Your task to perform on an android device: change timer sound Image 0: 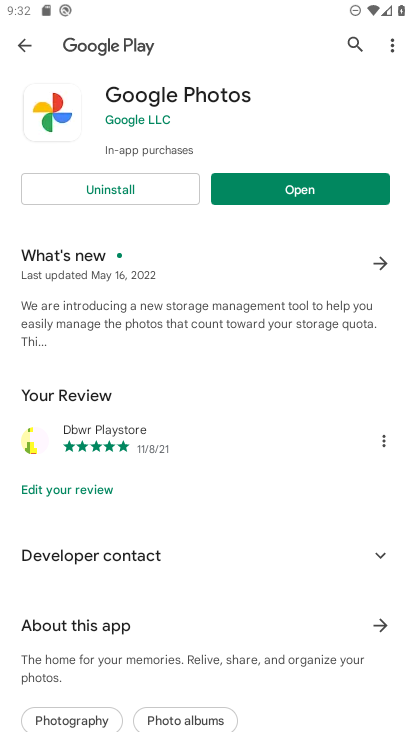
Step 0: press home button
Your task to perform on an android device: change timer sound Image 1: 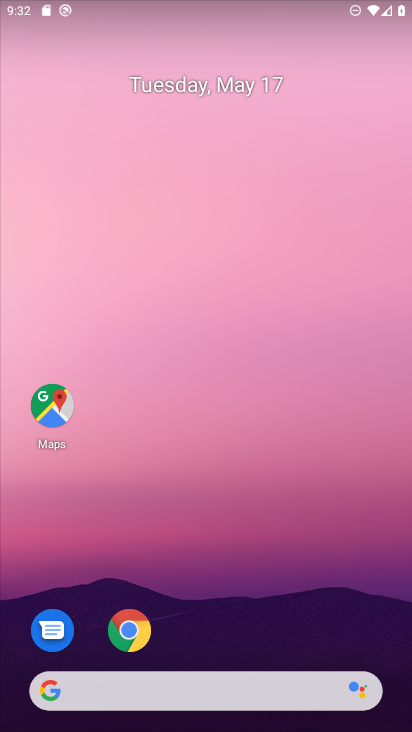
Step 1: drag from (346, 593) to (358, 142)
Your task to perform on an android device: change timer sound Image 2: 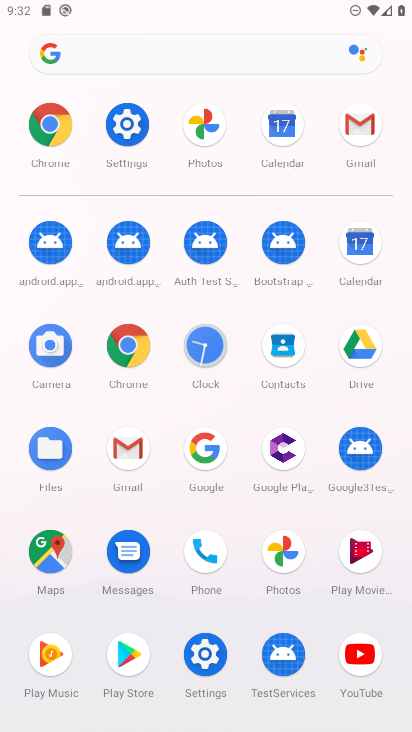
Step 2: click (199, 358)
Your task to perform on an android device: change timer sound Image 3: 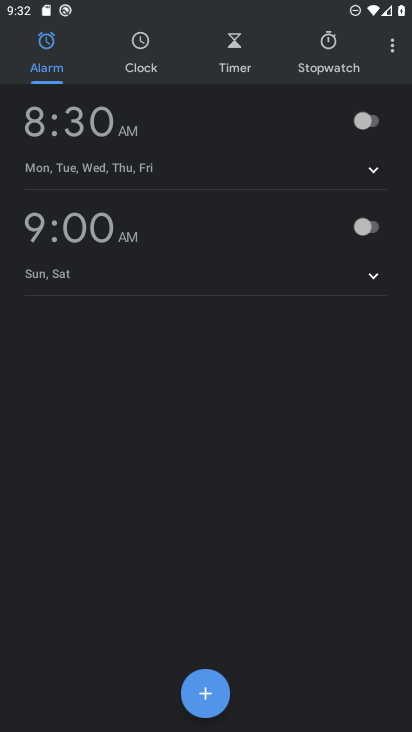
Step 3: click (392, 46)
Your task to perform on an android device: change timer sound Image 4: 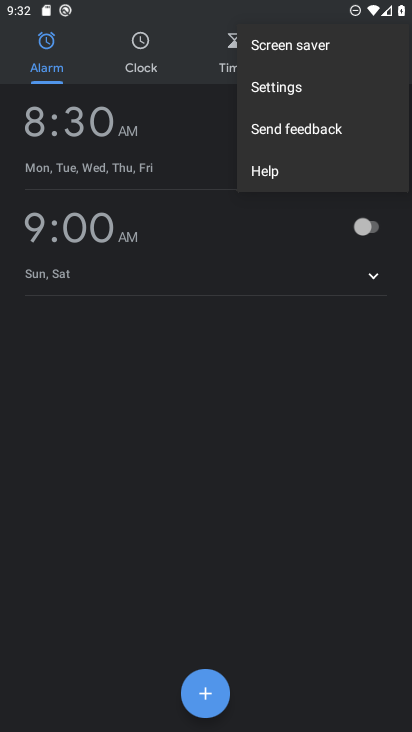
Step 4: click (313, 100)
Your task to perform on an android device: change timer sound Image 5: 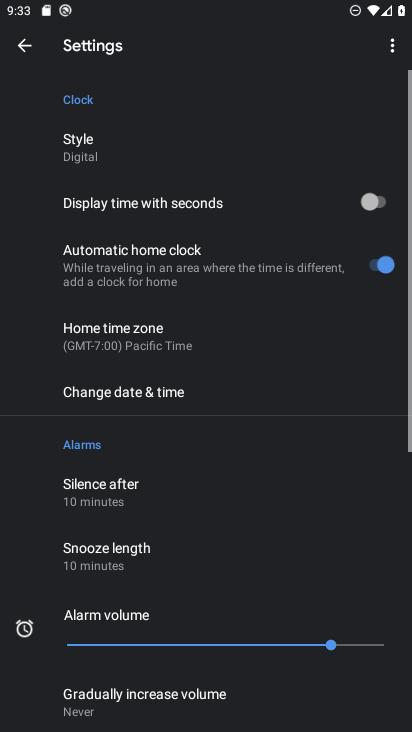
Step 5: drag from (244, 541) to (256, 386)
Your task to perform on an android device: change timer sound Image 6: 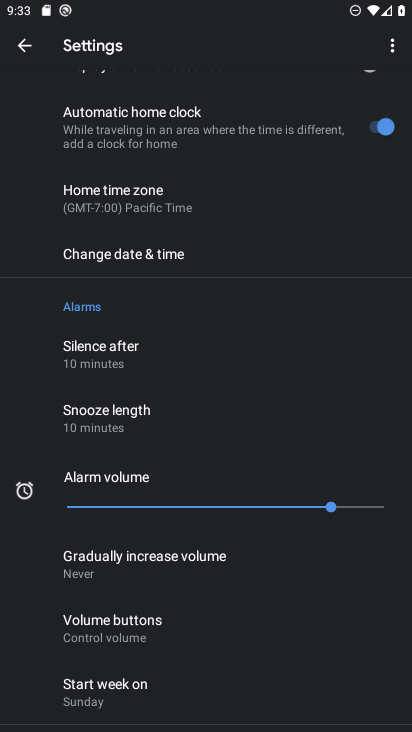
Step 6: drag from (250, 559) to (251, 434)
Your task to perform on an android device: change timer sound Image 7: 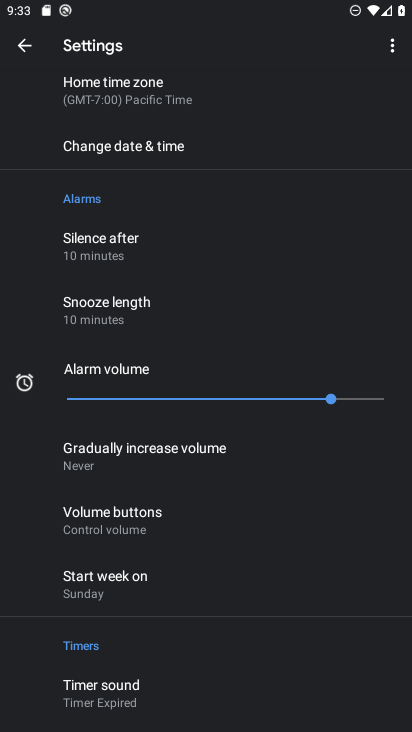
Step 7: drag from (261, 562) to (277, 448)
Your task to perform on an android device: change timer sound Image 8: 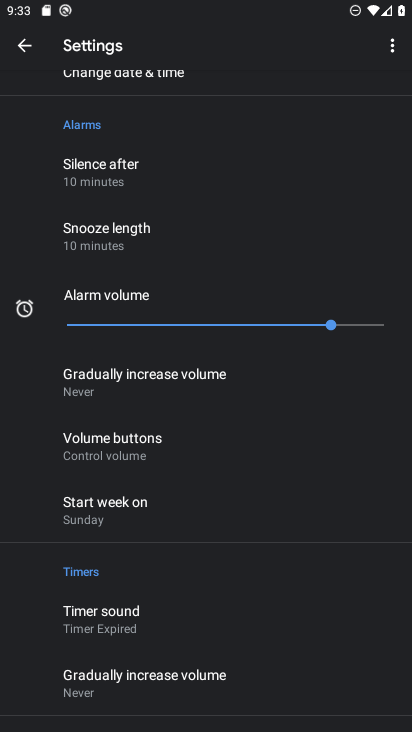
Step 8: drag from (249, 586) to (272, 442)
Your task to perform on an android device: change timer sound Image 9: 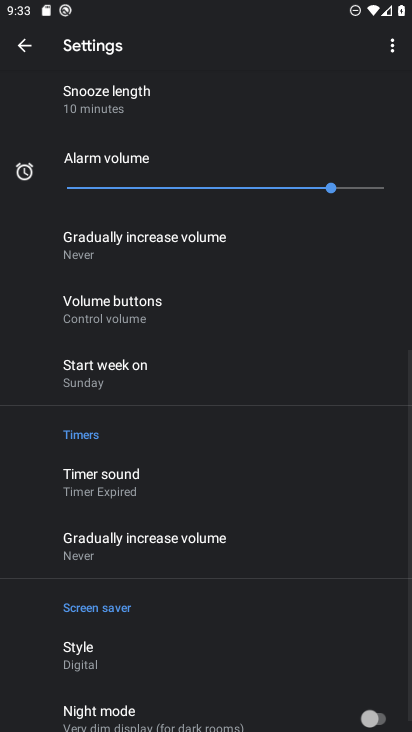
Step 9: drag from (254, 617) to (254, 502)
Your task to perform on an android device: change timer sound Image 10: 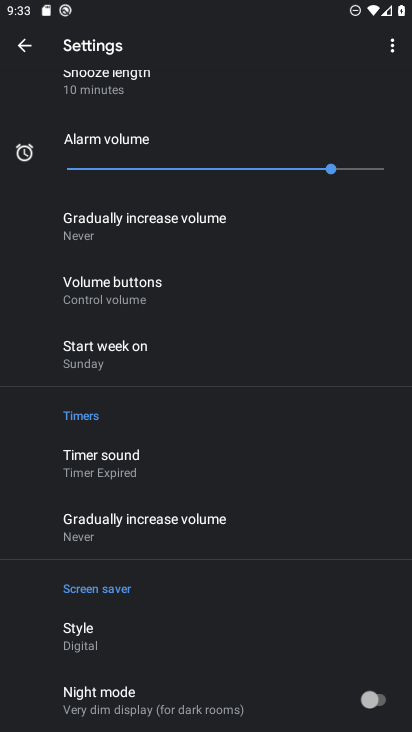
Step 10: drag from (244, 630) to (259, 499)
Your task to perform on an android device: change timer sound Image 11: 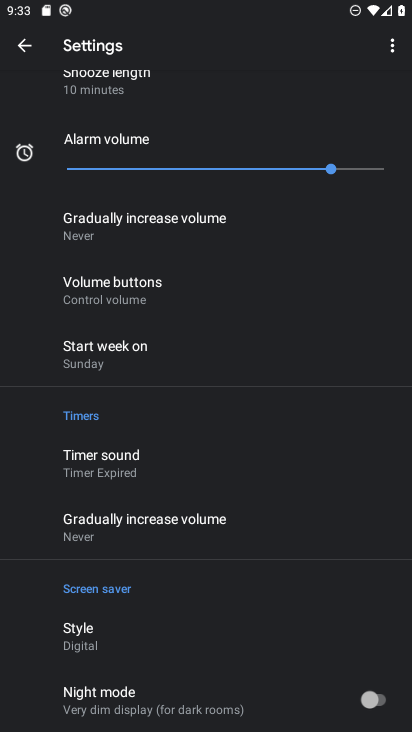
Step 11: drag from (253, 629) to (259, 475)
Your task to perform on an android device: change timer sound Image 12: 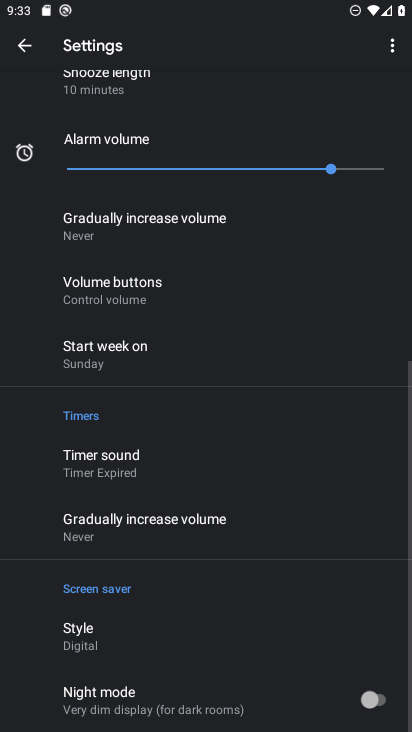
Step 12: drag from (268, 333) to (251, 503)
Your task to perform on an android device: change timer sound Image 13: 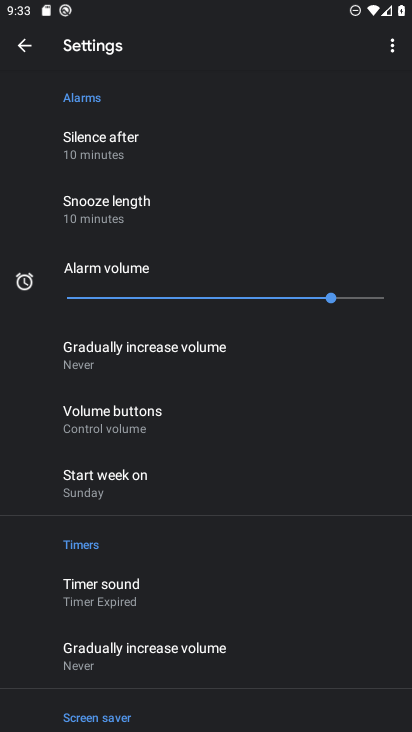
Step 13: drag from (245, 248) to (230, 415)
Your task to perform on an android device: change timer sound Image 14: 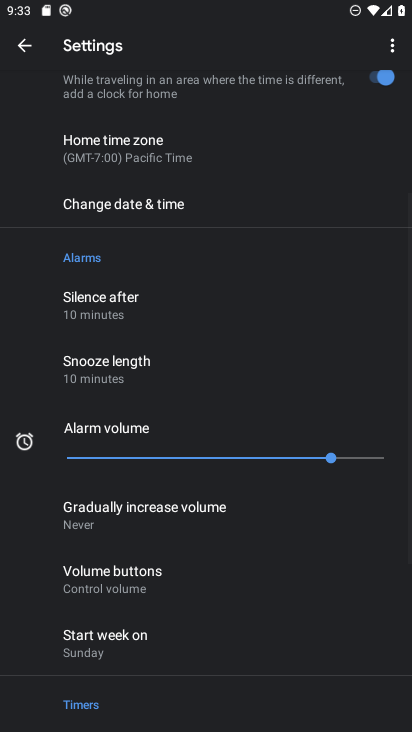
Step 14: drag from (263, 194) to (245, 353)
Your task to perform on an android device: change timer sound Image 15: 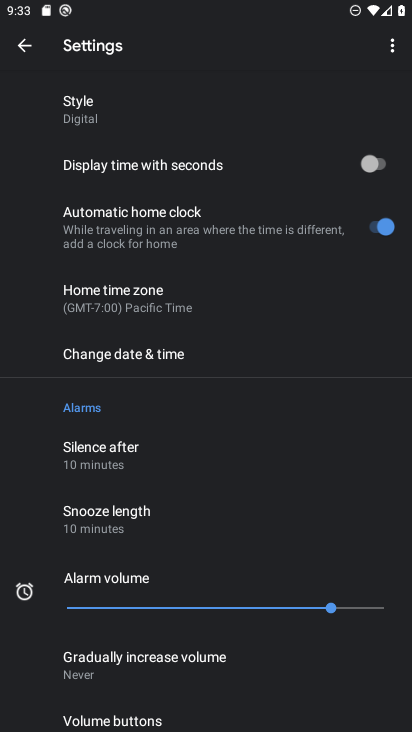
Step 15: drag from (249, 158) to (238, 353)
Your task to perform on an android device: change timer sound Image 16: 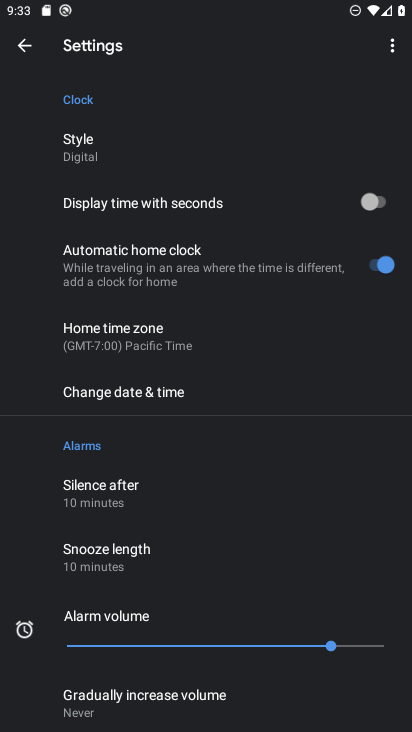
Step 16: drag from (244, 496) to (243, 352)
Your task to perform on an android device: change timer sound Image 17: 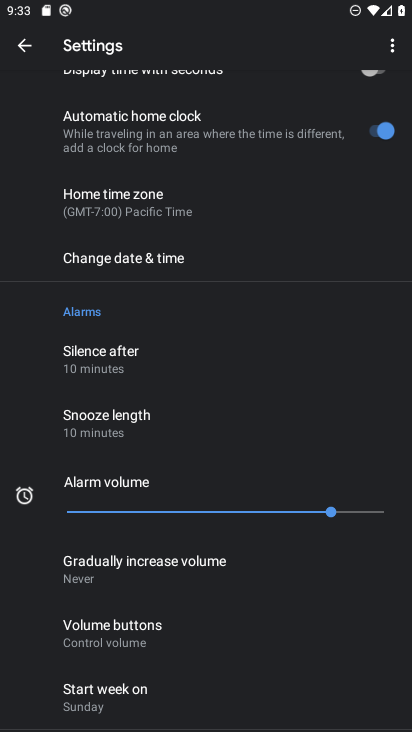
Step 17: drag from (253, 578) to (278, 433)
Your task to perform on an android device: change timer sound Image 18: 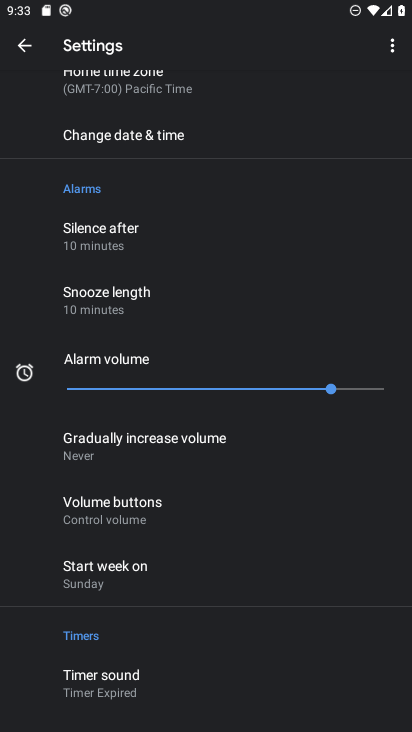
Step 18: drag from (245, 589) to (260, 465)
Your task to perform on an android device: change timer sound Image 19: 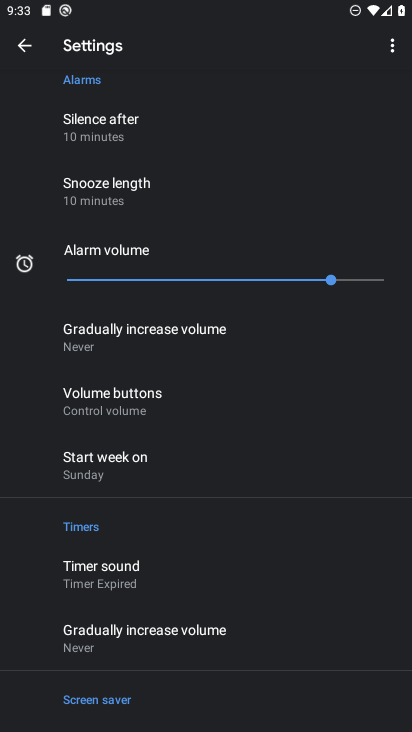
Step 19: click (139, 583)
Your task to perform on an android device: change timer sound Image 20: 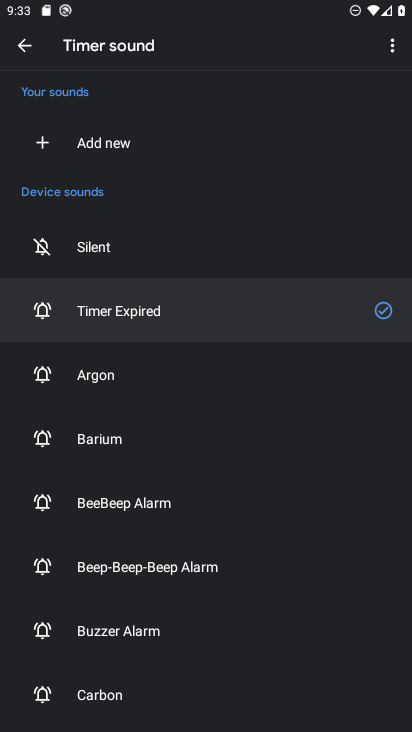
Step 20: click (84, 438)
Your task to perform on an android device: change timer sound Image 21: 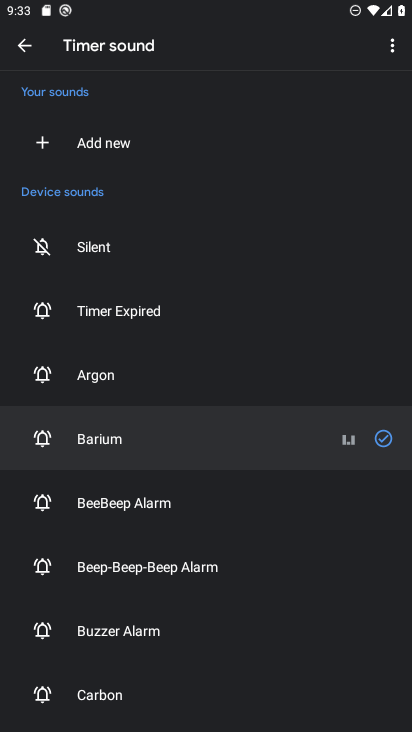
Step 21: task complete